Your task to perform on an android device: turn off javascript in the chrome app Image 0: 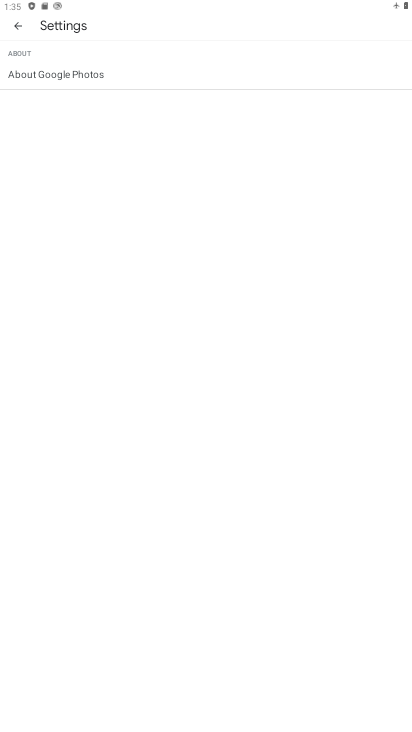
Step 0: press home button
Your task to perform on an android device: turn off javascript in the chrome app Image 1: 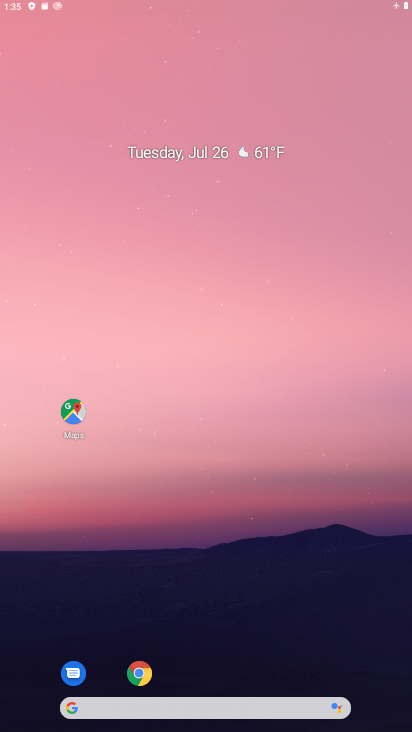
Step 1: drag from (180, 546) to (312, 13)
Your task to perform on an android device: turn off javascript in the chrome app Image 2: 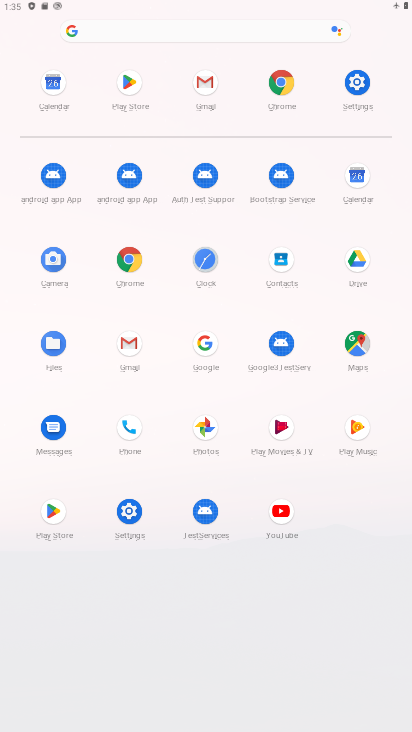
Step 2: click (125, 256)
Your task to perform on an android device: turn off javascript in the chrome app Image 3: 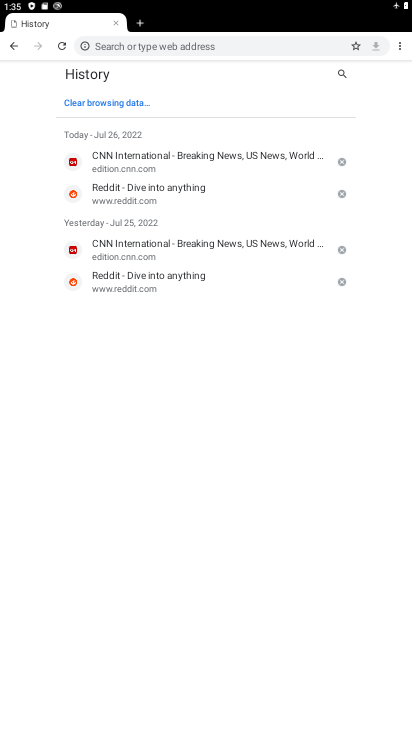
Step 3: drag from (403, 44) to (328, 206)
Your task to perform on an android device: turn off javascript in the chrome app Image 4: 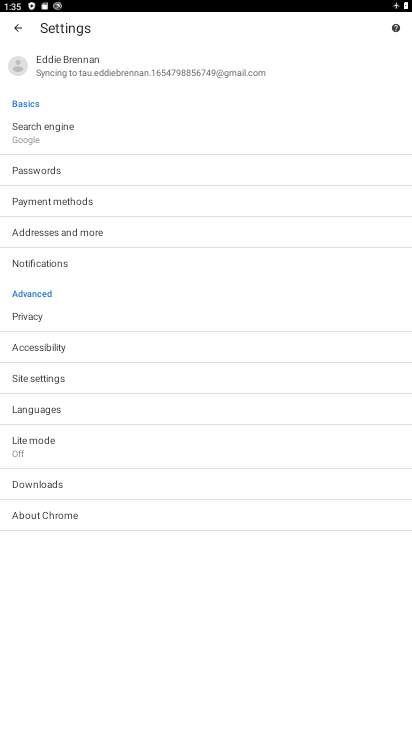
Step 4: click (62, 363)
Your task to perform on an android device: turn off javascript in the chrome app Image 5: 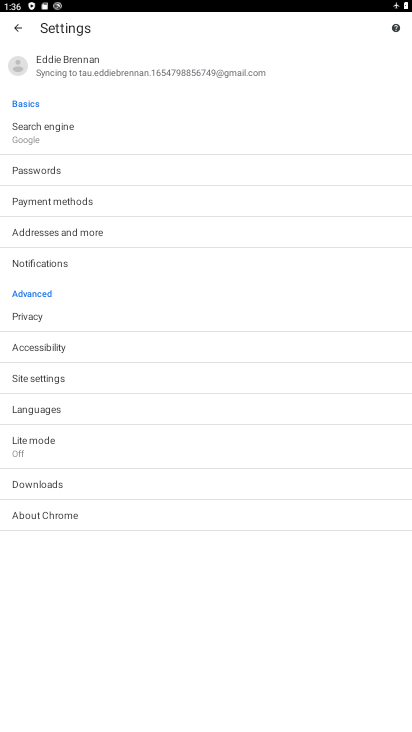
Step 5: click (75, 378)
Your task to perform on an android device: turn off javascript in the chrome app Image 6: 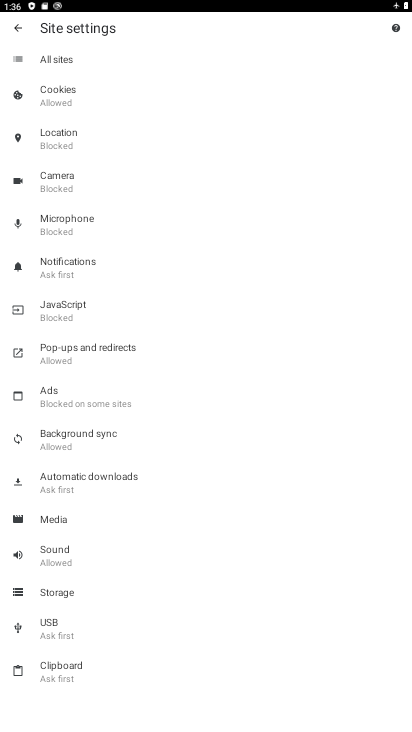
Step 6: click (93, 315)
Your task to perform on an android device: turn off javascript in the chrome app Image 7: 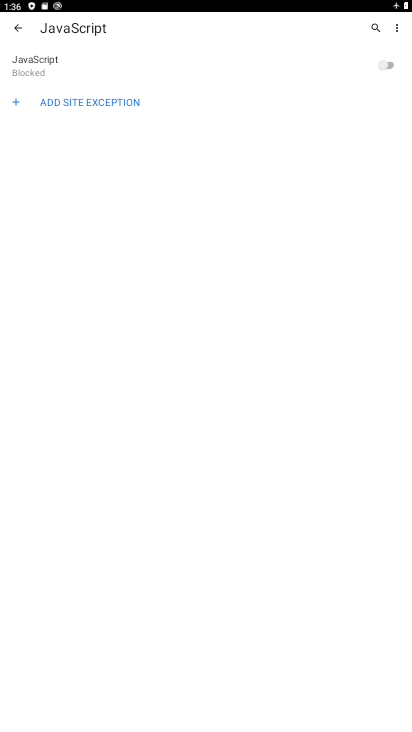
Step 7: task complete